Your task to perform on an android device: Search for pizza restaurants on Maps Image 0: 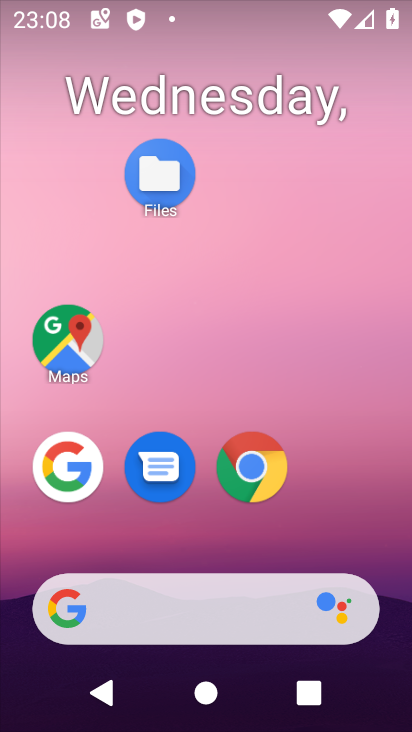
Step 0: click (53, 329)
Your task to perform on an android device: Search for pizza restaurants on Maps Image 1: 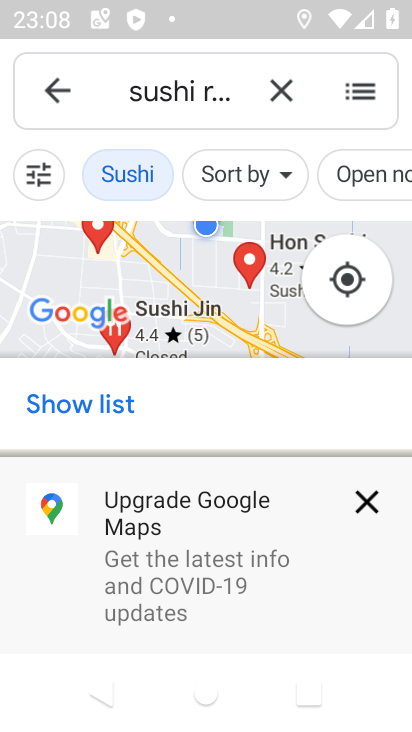
Step 1: click (65, 91)
Your task to perform on an android device: Search for pizza restaurants on Maps Image 2: 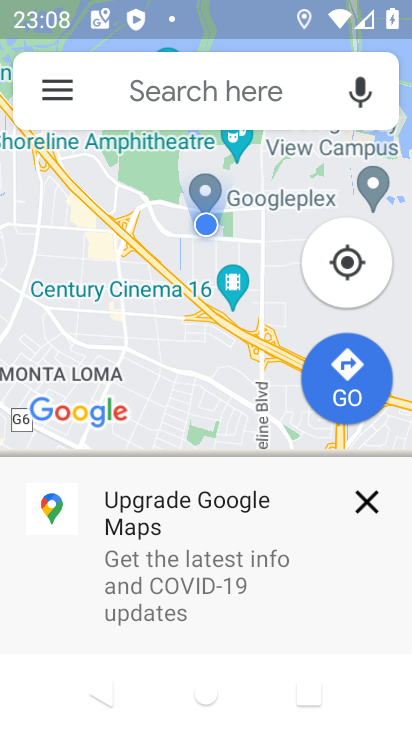
Step 2: click (195, 110)
Your task to perform on an android device: Search for pizza restaurants on Maps Image 3: 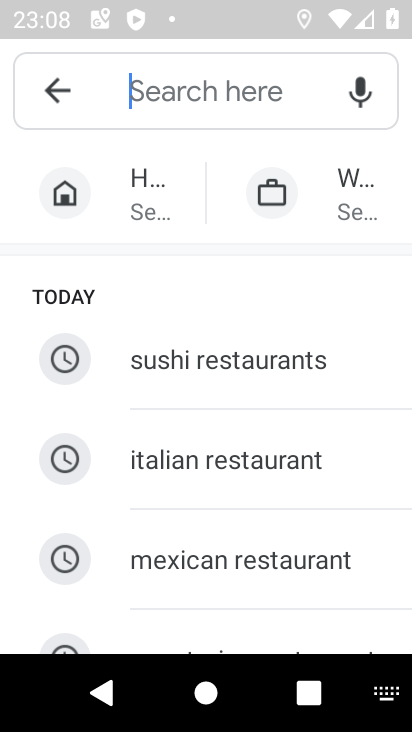
Step 3: type "pizza restuarant"
Your task to perform on an android device: Search for pizza restaurants on Maps Image 4: 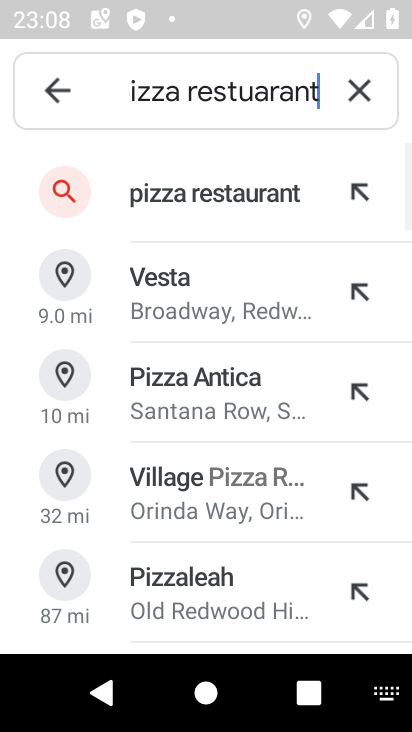
Step 4: click (248, 182)
Your task to perform on an android device: Search for pizza restaurants on Maps Image 5: 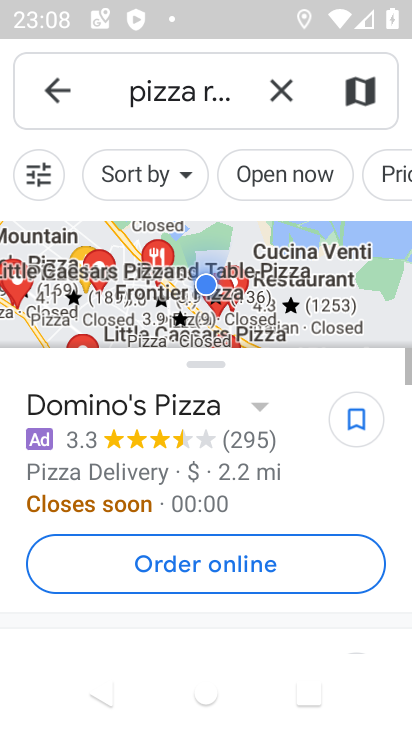
Step 5: task complete